Your task to perform on an android device: Open Chrome and go to settings Image 0: 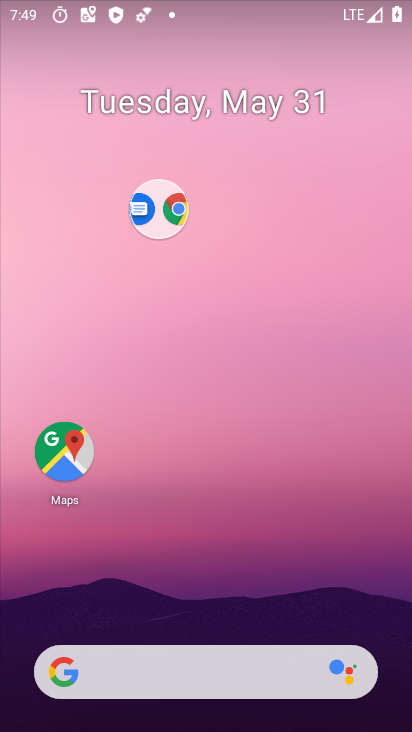
Step 0: click (389, 308)
Your task to perform on an android device: Open Chrome and go to settings Image 1: 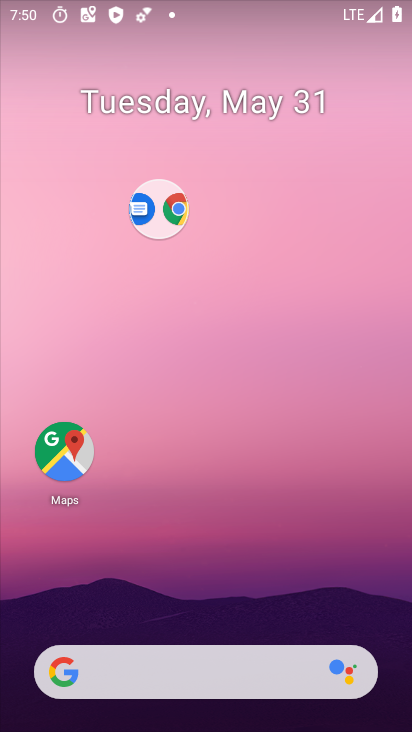
Step 1: drag from (210, 618) to (329, 0)
Your task to perform on an android device: Open Chrome and go to settings Image 2: 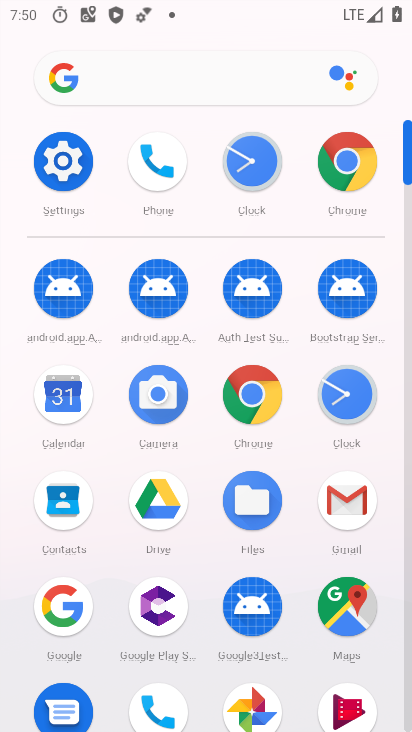
Step 2: click (351, 169)
Your task to perform on an android device: Open Chrome and go to settings Image 3: 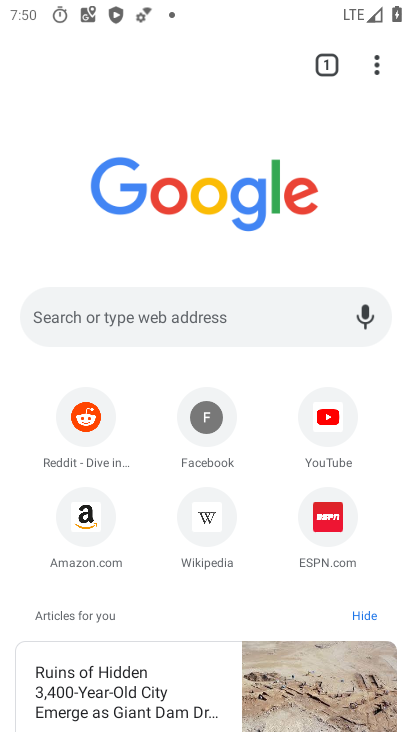
Step 3: click (377, 78)
Your task to perform on an android device: Open Chrome and go to settings Image 4: 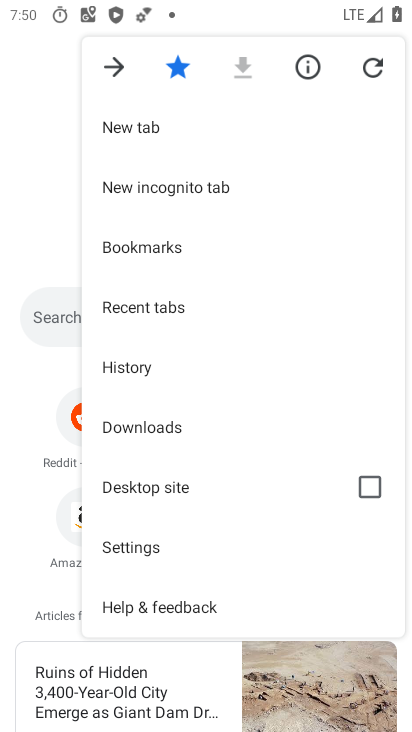
Step 4: click (130, 550)
Your task to perform on an android device: Open Chrome and go to settings Image 5: 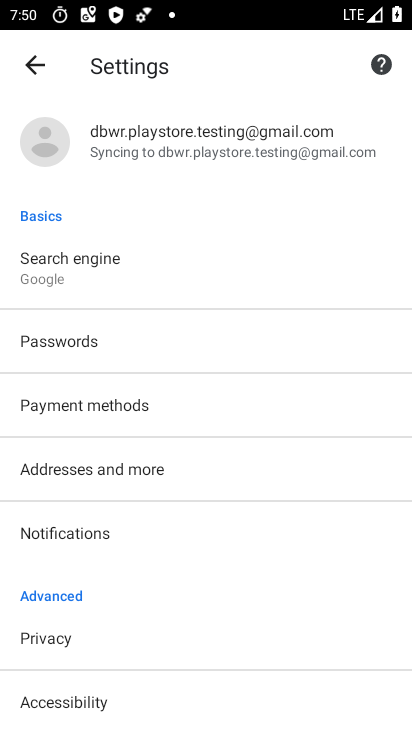
Step 5: task complete